Your task to perform on an android device: Open the Play Movies app and select the watchlist tab. Image 0: 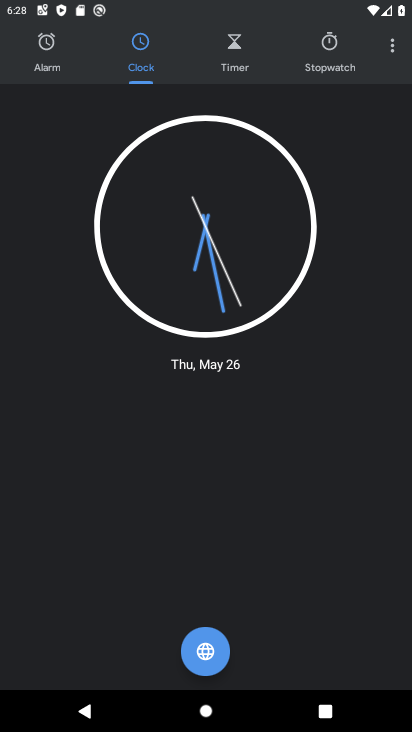
Step 0: press home button
Your task to perform on an android device: Open the Play Movies app and select the watchlist tab. Image 1: 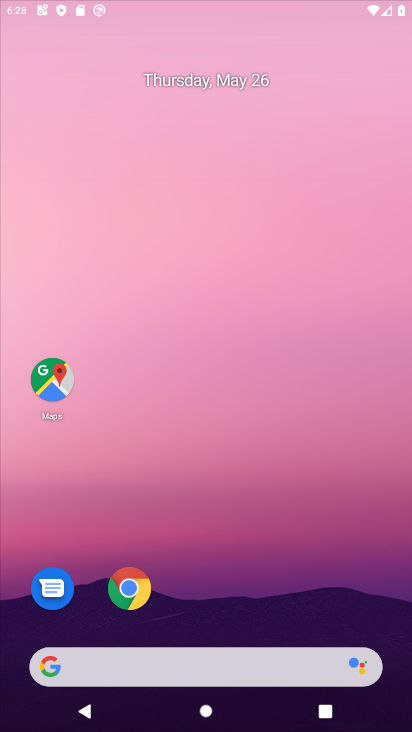
Step 1: drag from (352, 585) to (142, 0)
Your task to perform on an android device: Open the Play Movies app and select the watchlist tab. Image 2: 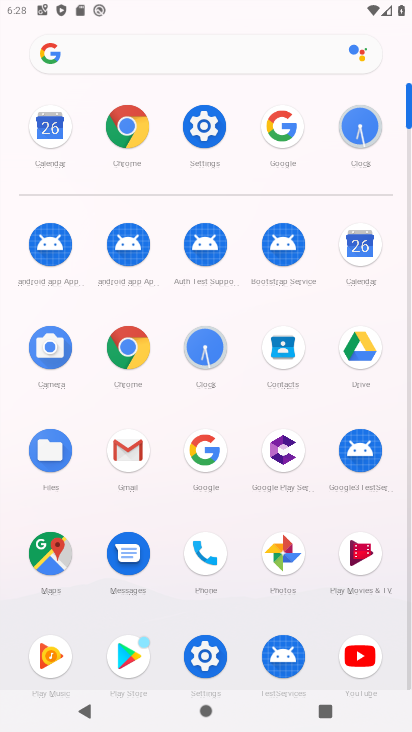
Step 2: click (363, 565)
Your task to perform on an android device: Open the Play Movies app and select the watchlist tab. Image 3: 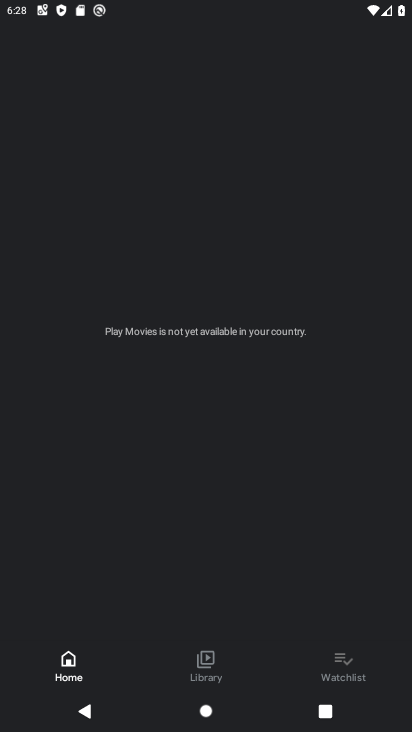
Step 3: click (353, 657)
Your task to perform on an android device: Open the Play Movies app and select the watchlist tab. Image 4: 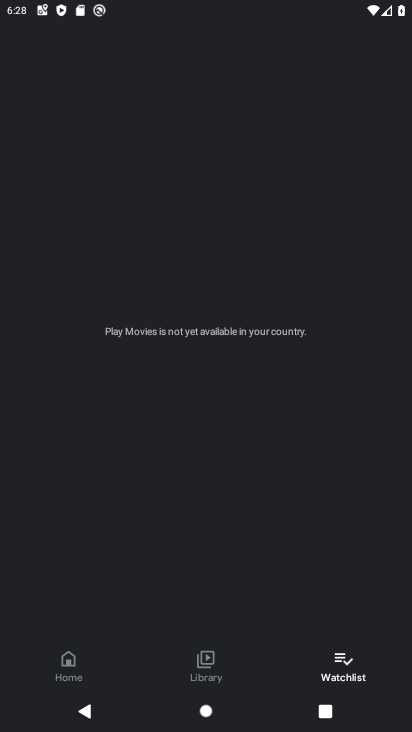
Step 4: task complete